Your task to perform on an android device: toggle notifications settings in the gmail app Image 0: 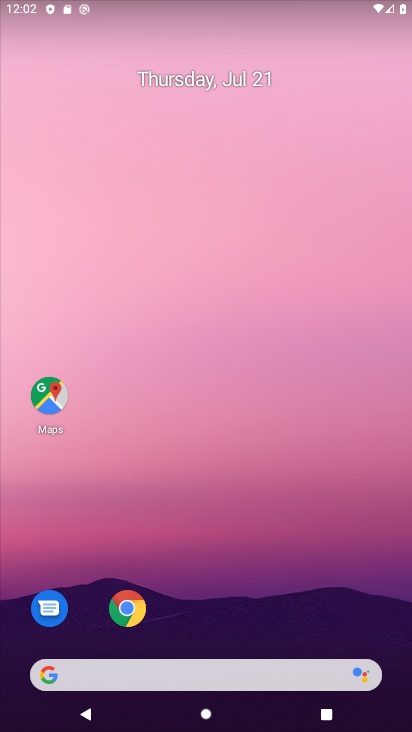
Step 0: press home button
Your task to perform on an android device: toggle notifications settings in the gmail app Image 1: 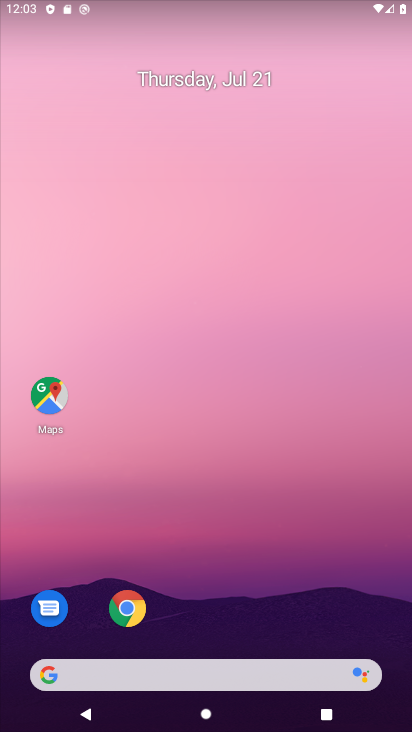
Step 1: drag from (208, 631) to (229, 160)
Your task to perform on an android device: toggle notifications settings in the gmail app Image 2: 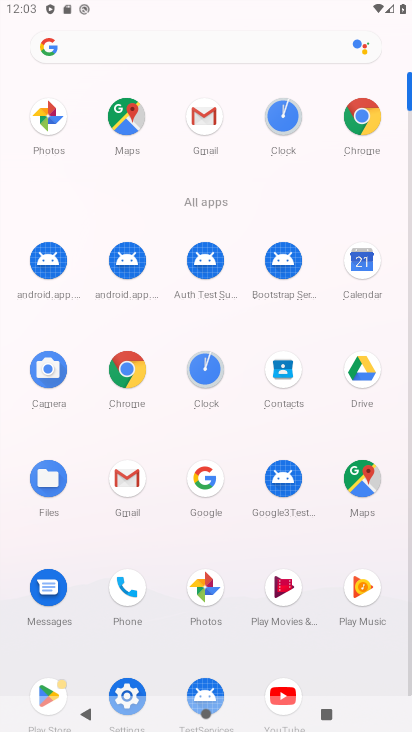
Step 2: click (126, 470)
Your task to perform on an android device: toggle notifications settings in the gmail app Image 3: 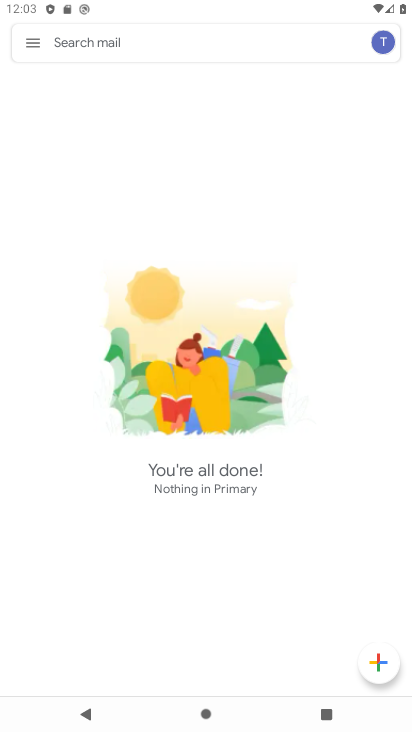
Step 3: click (30, 41)
Your task to perform on an android device: toggle notifications settings in the gmail app Image 4: 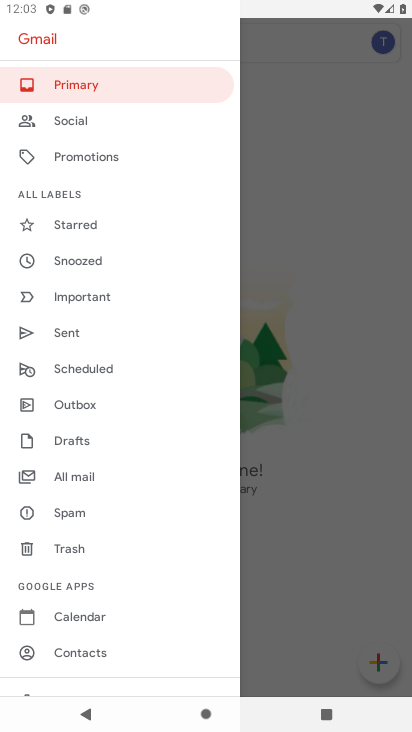
Step 4: drag from (110, 623) to (116, 157)
Your task to perform on an android device: toggle notifications settings in the gmail app Image 5: 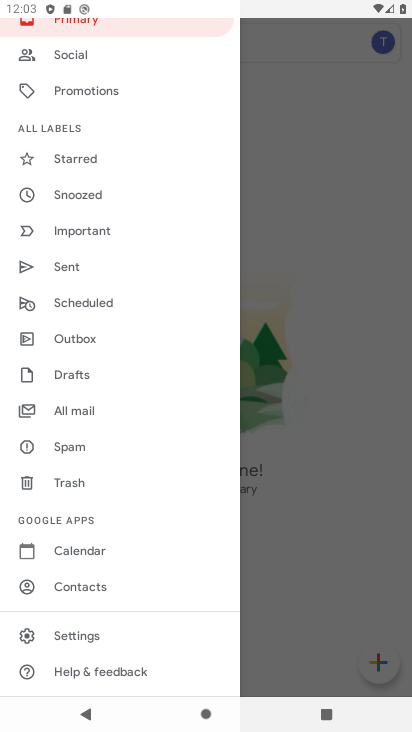
Step 5: click (107, 634)
Your task to perform on an android device: toggle notifications settings in the gmail app Image 6: 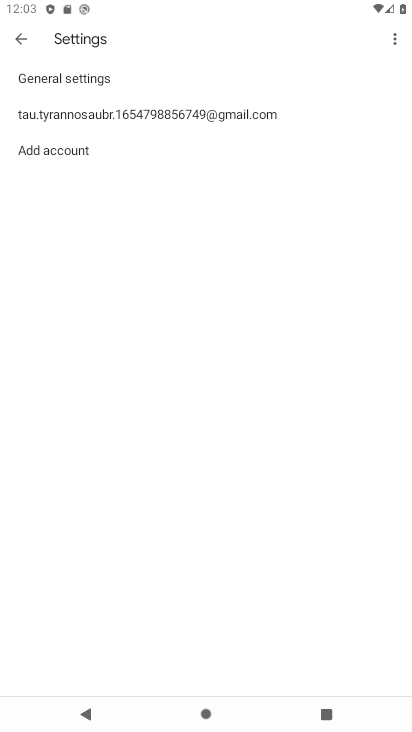
Step 6: click (121, 72)
Your task to perform on an android device: toggle notifications settings in the gmail app Image 7: 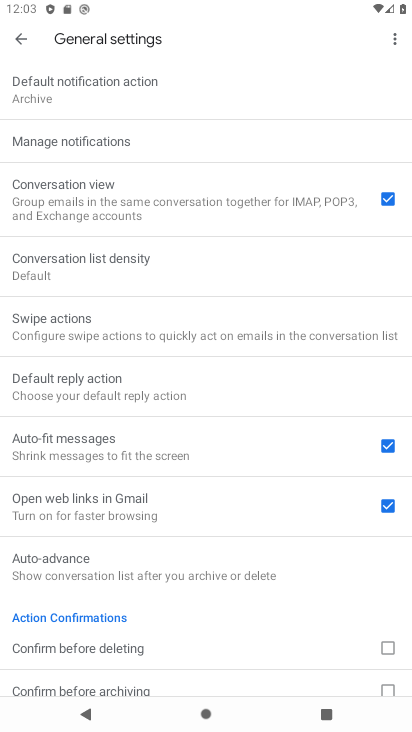
Step 7: click (127, 143)
Your task to perform on an android device: toggle notifications settings in the gmail app Image 8: 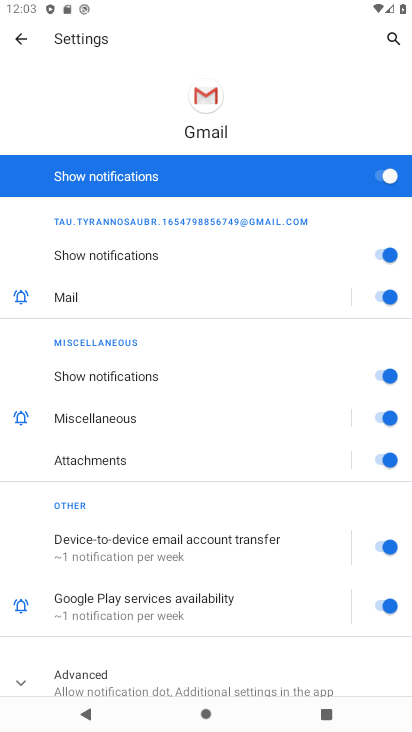
Step 8: click (382, 167)
Your task to perform on an android device: toggle notifications settings in the gmail app Image 9: 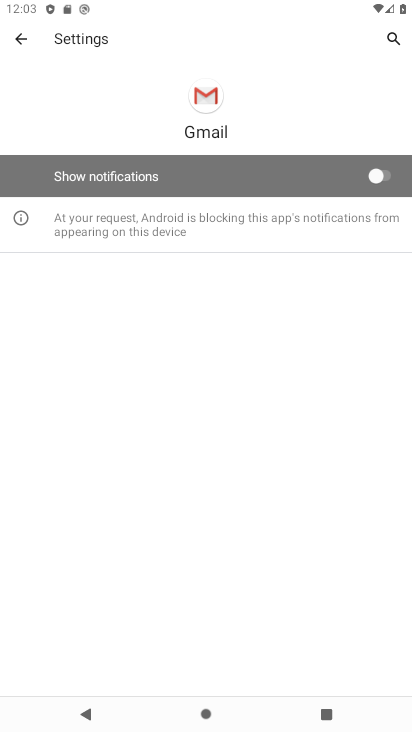
Step 9: task complete